Your task to perform on an android device: toggle notification dots Image 0: 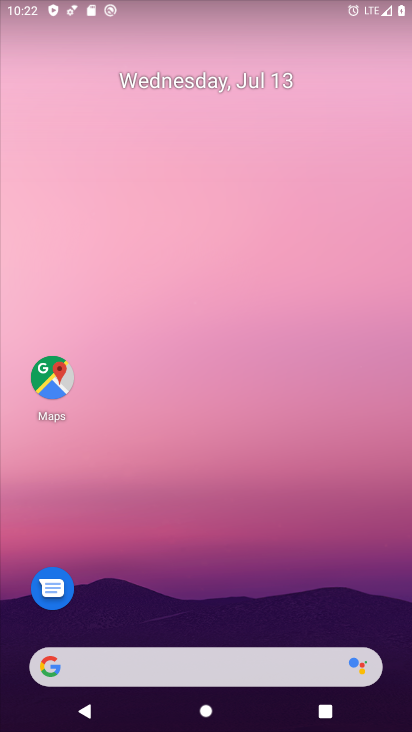
Step 0: drag from (119, 692) to (182, 2)
Your task to perform on an android device: toggle notification dots Image 1: 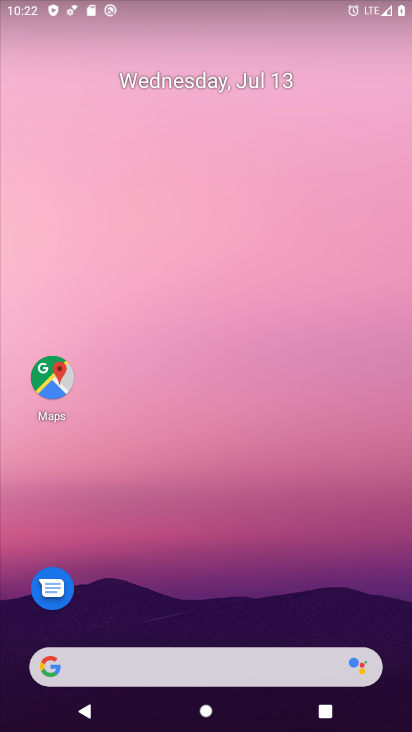
Step 1: drag from (150, 720) to (201, 0)
Your task to perform on an android device: toggle notification dots Image 2: 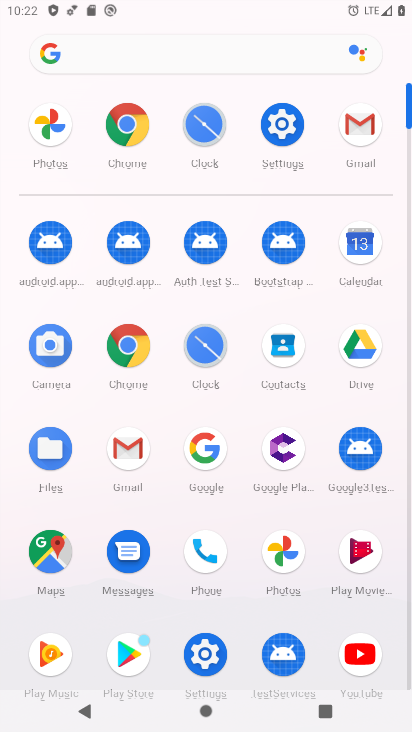
Step 2: click (291, 124)
Your task to perform on an android device: toggle notification dots Image 3: 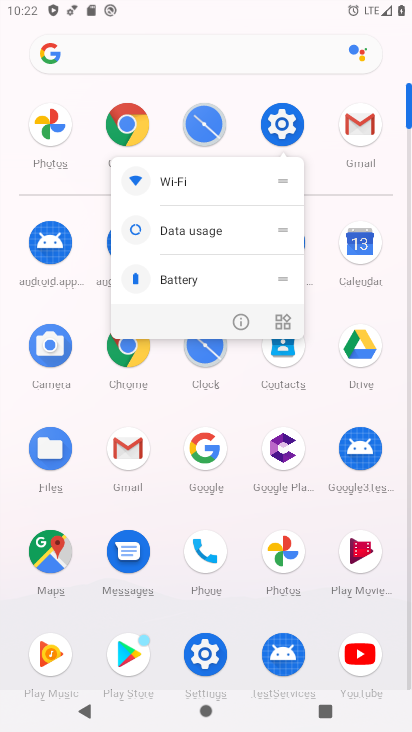
Step 3: click (286, 127)
Your task to perform on an android device: toggle notification dots Image 4: 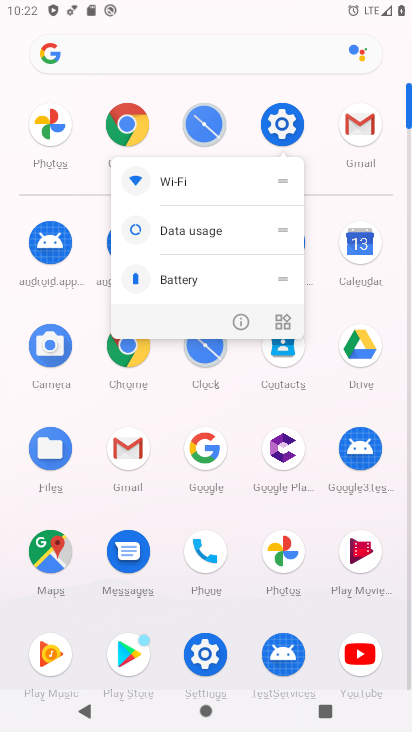
Step 4: click (286, 127)
Your task to perform on an android device: toggle notification dots Image 5: 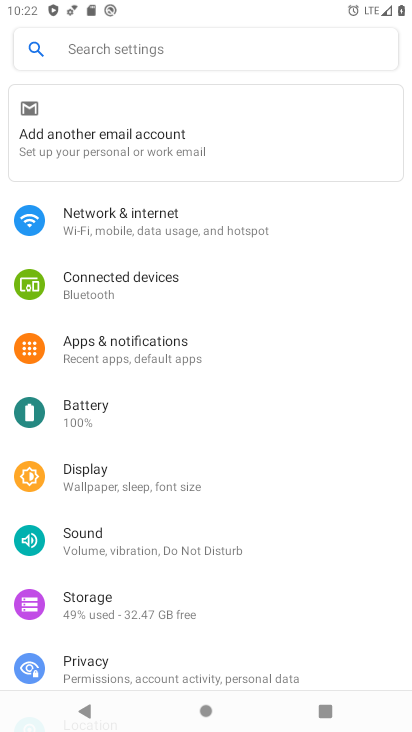
Step 5: click (177, 362)
Your task to perform on an android device: toggle notification dots Image 6: 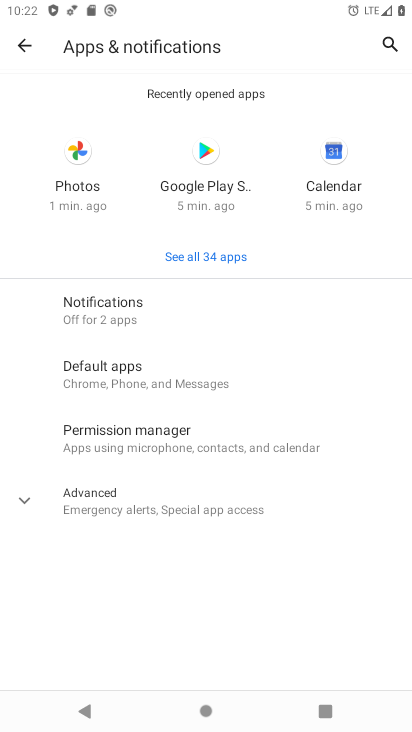
Step 6: click (153, 314)
Your task to perform on an android device: toggle notification dots Image 7: 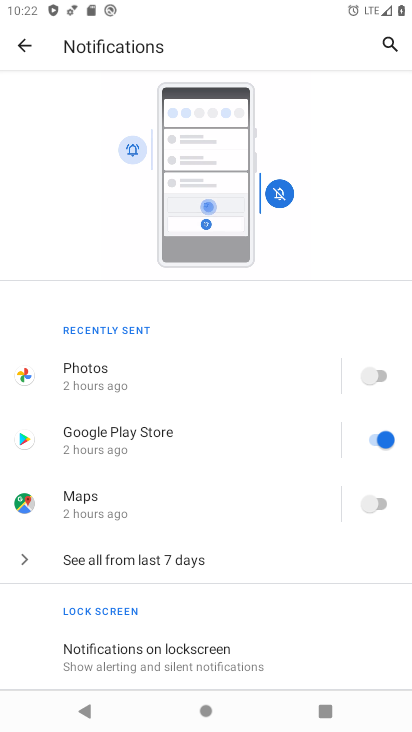
Step 7: drag from (209, 634) to (26, 10)
Your task to perform on an android device: toggle notification dots Image 8: 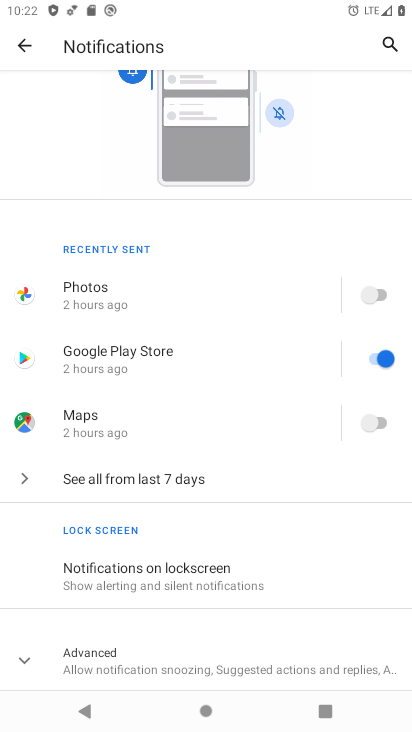
Step 8: click (251, 672)
Your task to perform on an android device: toggle notification dots Image 9: 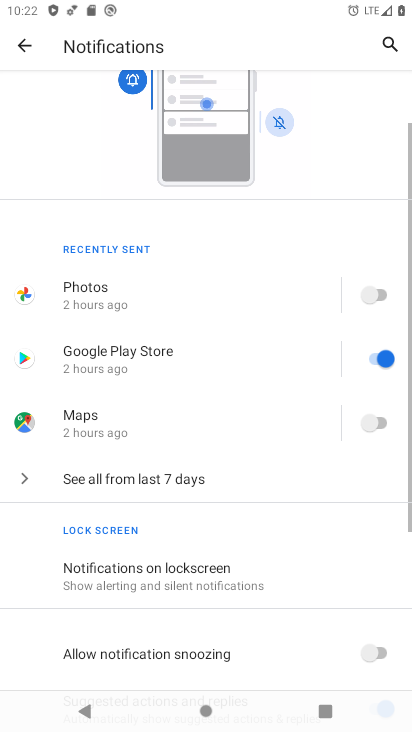
Step 9: drag from (233, 503) to (201, 65)
Your task to perform on an android device: toggle notification dots Image 10: 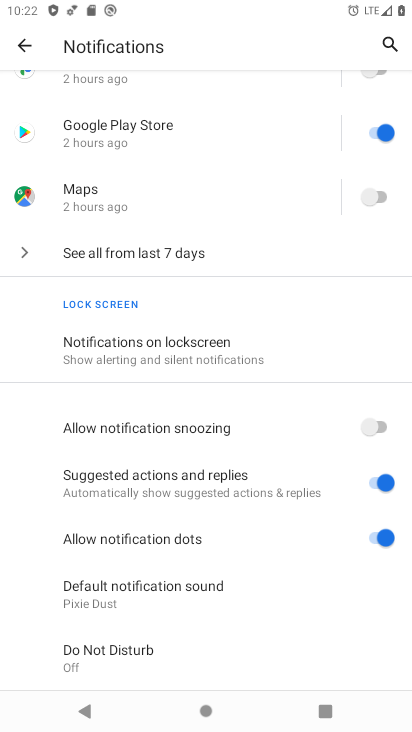
Step 10: click (391, 529)
Your task to perform on an android device: toggle notification dots Image 11: 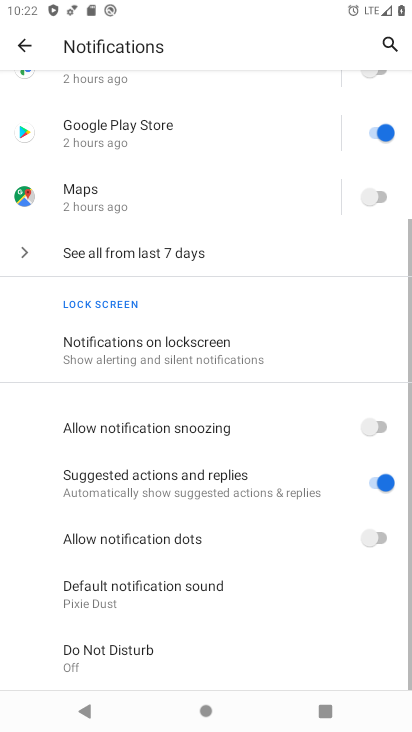
Step 11: task complete